Your task to perform on an android device: toggle pop-ups in chrome Image 0: 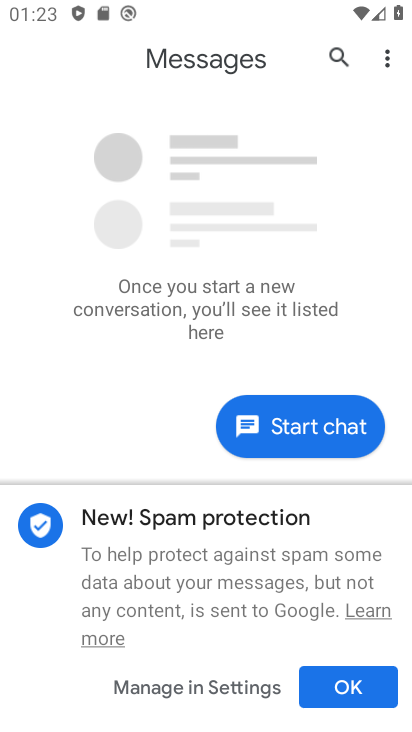
Step 0: press home button
Your task to perform on an android device: toggle pop-ups in chrome Image 1: 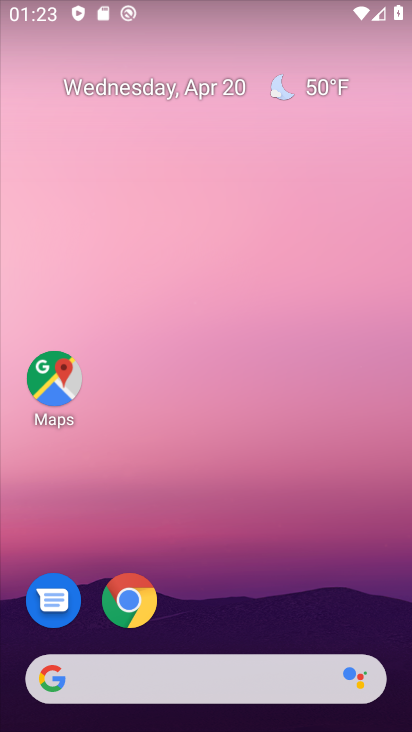
Step 1: click (145, 602)
Your task to perform on an android device: toggle pop-ups in chrome Image 2: 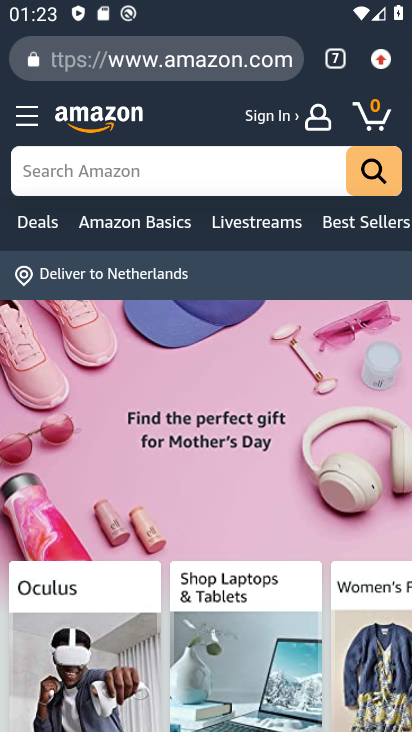
Step 2: click (379, 65)
Your task to perform on an android device: toggle pop-ups in chrome Image 3: 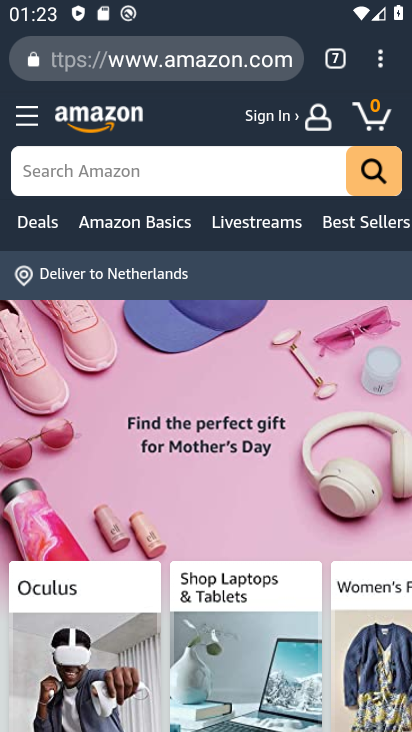
Step 3: drag from (377, 57) to (210, 618)
Your task to perform on an android device: toggle pop-ups in chrome Image 4: 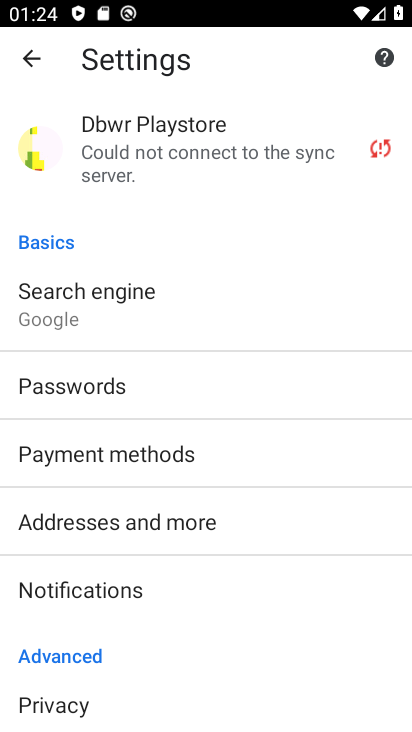
Step 4: drag from (208, 618) to (312, 177)
Your task to perform on an android device: toggle pop-ups in chrome Image 5: 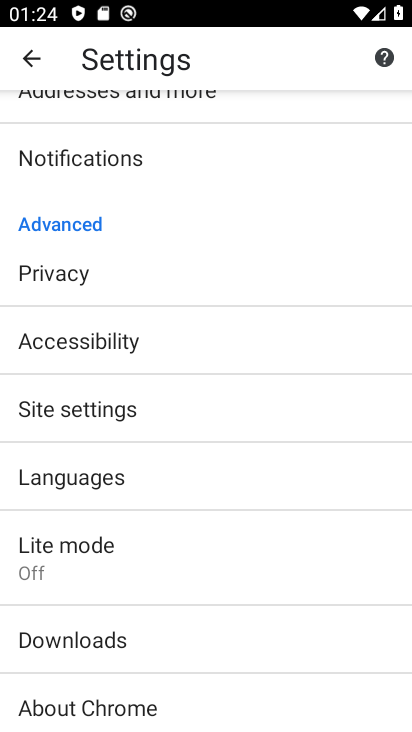
Step 5: click (122, 398)
Your task to perform on an android device: toggle pop-ups in chrome Image 6: 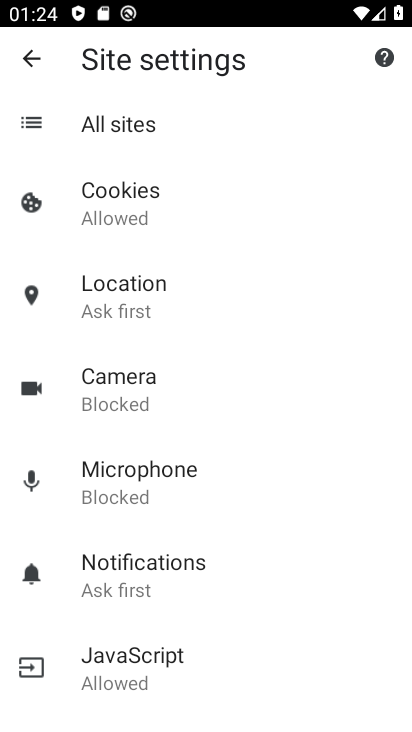
Step 6: drag from (167, 628) to (158, 185)
Your task to perform on an android device: toggle pop-ups in chrome Image 7: 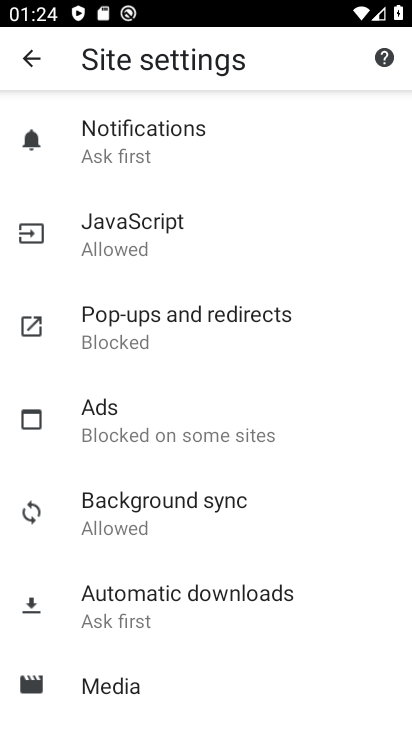
Step 7: click (170, 366)
Your task to perform on an android device: toggle pop-ups in chrome Image 8: 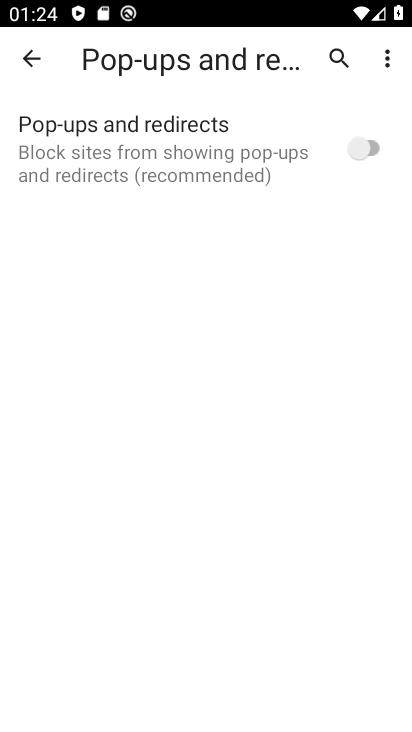
Step 8: click (368, 149)
Your task to perform on an android device: toggle pop-ups in chrome Image 9: 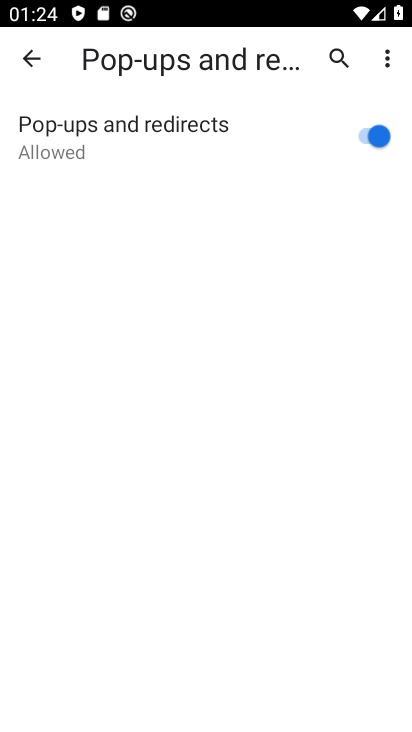
Step 9: task complete